Your task to perform on an android device: change your default location settings in chrome Image 0: 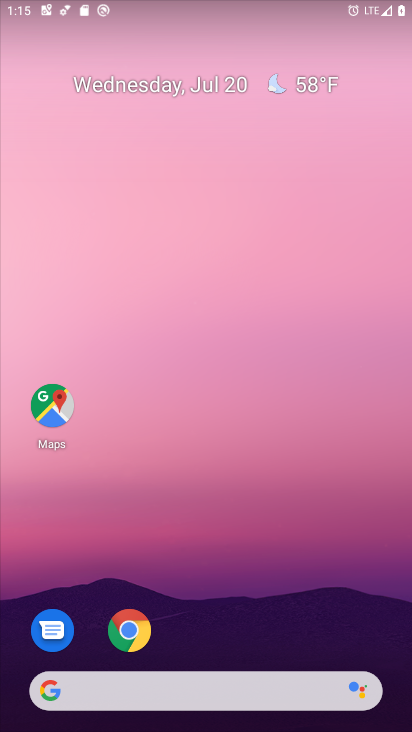
Step 0: drag from (272, 618) to (319, 147)
Your task to perform on an android device: change your default location settings in chrome Image 1: 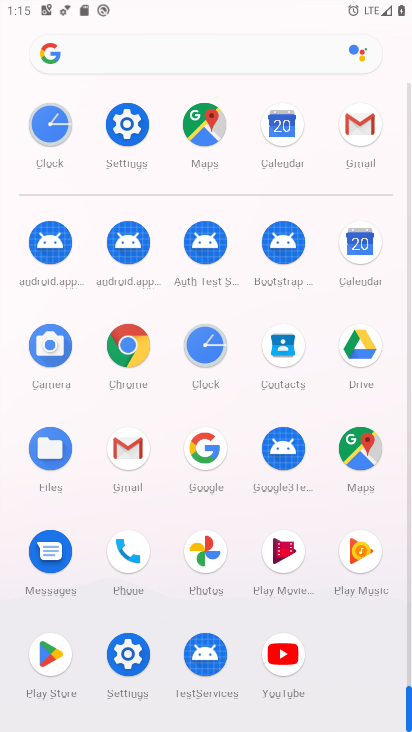
Step 1: drag from (197, 465) to (218, 166)
Your task to perform on an android device: change your default location settings in chrome Image 2: 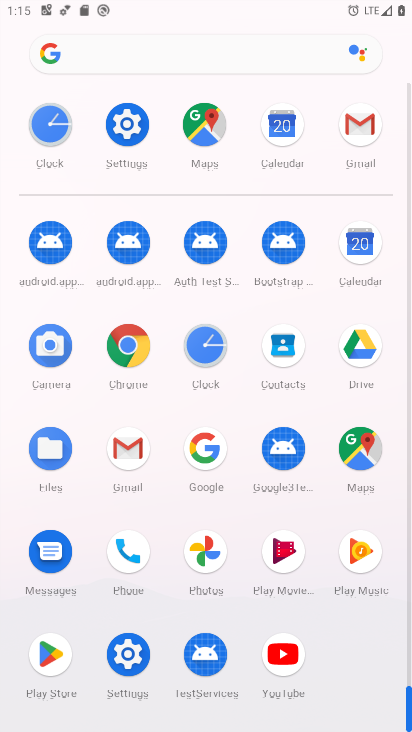
Step 2: click (152, 374)
Your task to perform on an android device: change your default location settings in chrome Image 3: 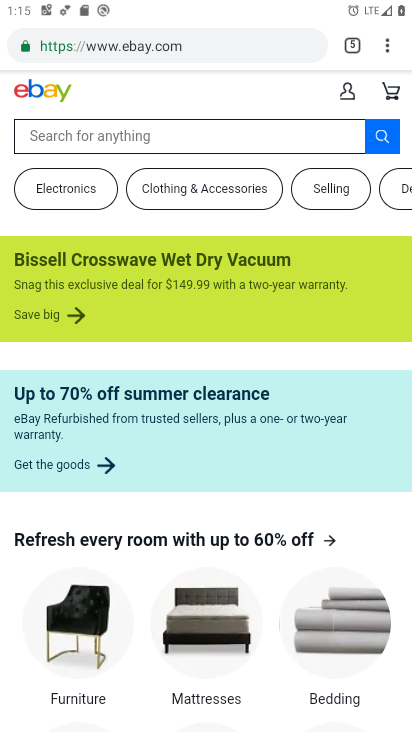
Step 3: click (385, 44)
Your task to perform on an android device: change your default location settings in chrome Image 4: 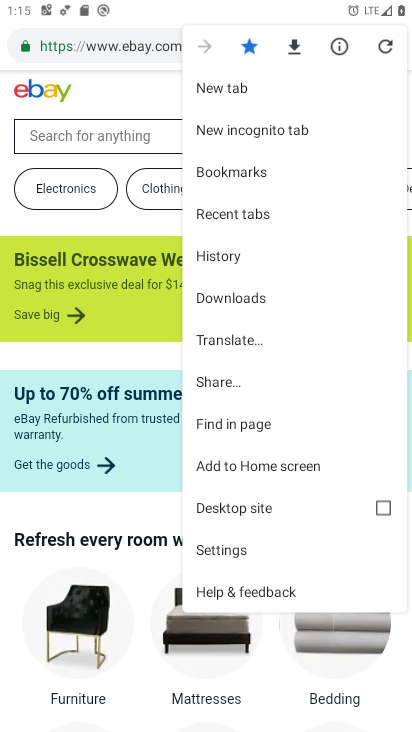
Step 4: click (255, 556)
Your task to perform on an android device: change your default location settings in chrome Image 5: 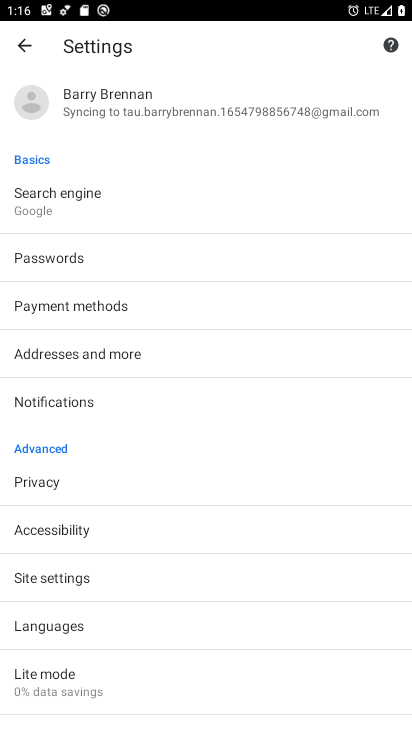
Step 5: click (174, 583)
Your task to perform on an android device: change your default location settings in chrome Image 6: 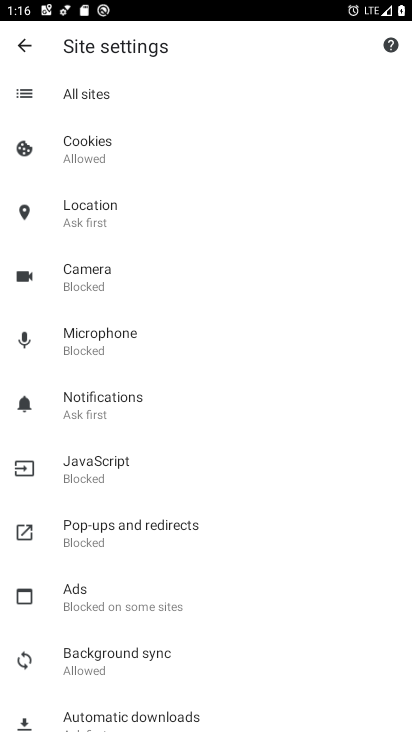
Step 6: click (116, 225)
Your task to perform on an android device: change your default location settings in chrome Image 7: 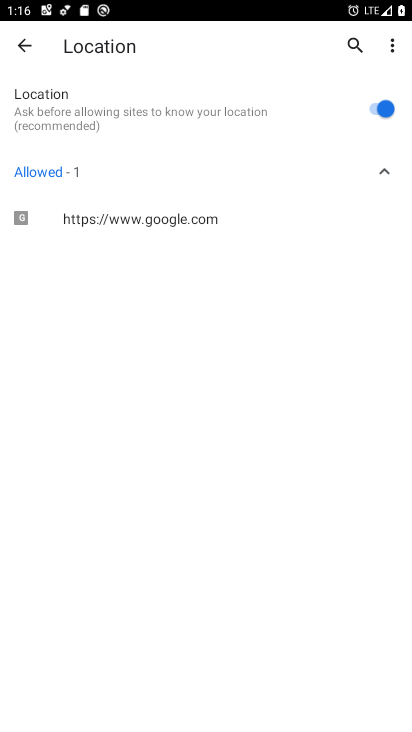
Step 7: click (205, 116)
Your task to perform on an android device: change your default location settings in chrome Image 8: 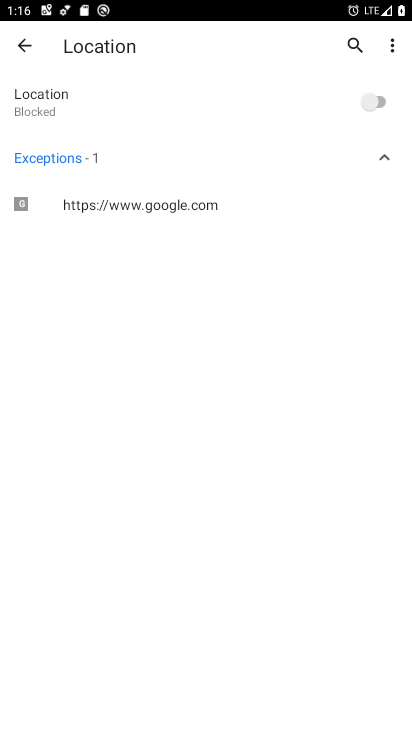
Step 8: task complete